Your task to perform on an android device: What's on my calendar tomorrow? Image 0: 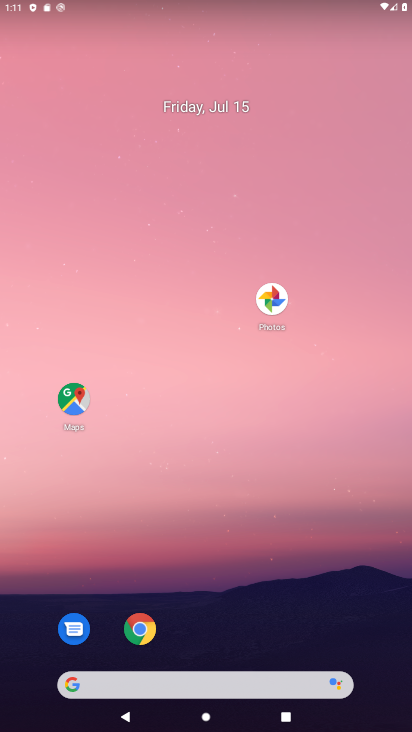
Step 0: drag from (134, 665) to (122, 180)
Your task to perform on an android device: What's on my calendar tomorrow? Image 1: 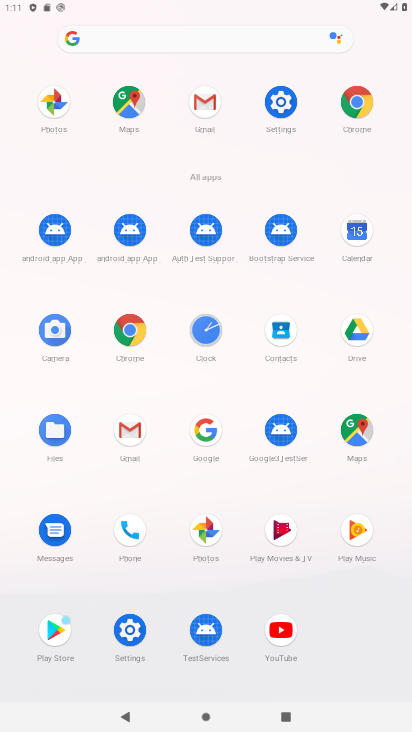
Step 1: click (352, 76)
Your task to perform on an android device: What's on my calendar tomorrow? Image 2: 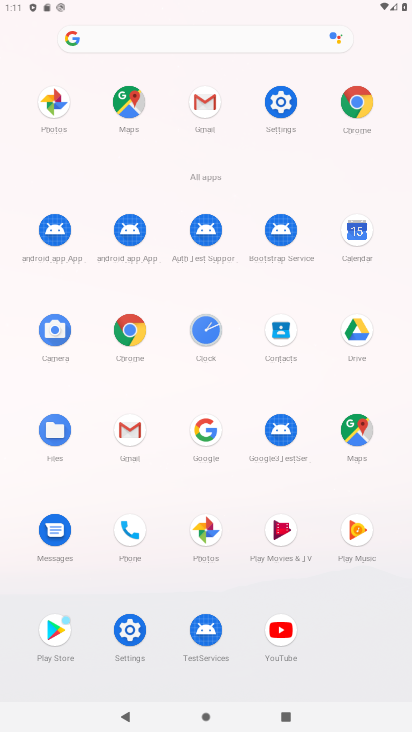
Step 2: click (364, 92)
Your task to perform on an android device: What's on my calendar tomorrow? Image 3: 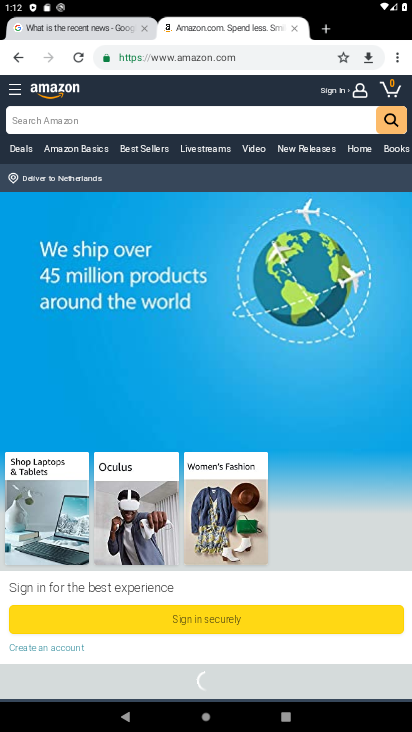
Step 3: click (400, 49)
Your task to perform on an android device: What's on my calendar tomorrow? Image 4: 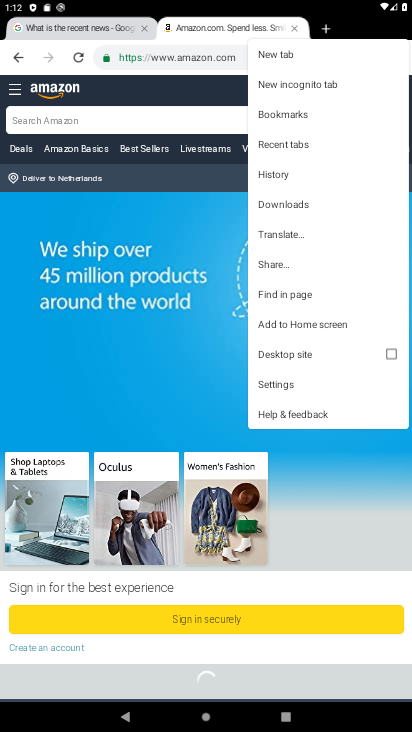
Step 4: click (274, 48)
Your task to perform on an android device: What's on my calendar tomorrow? Image 5: 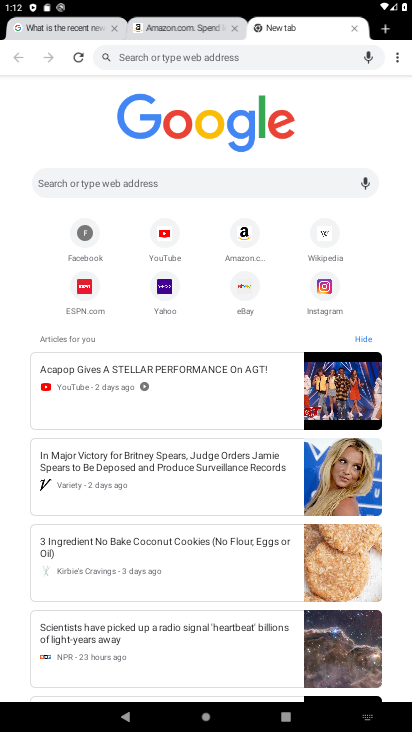
Step 5: click (71, 177)
Your task to perform on an android device: What's on my calendar tomorrow? Image 6: 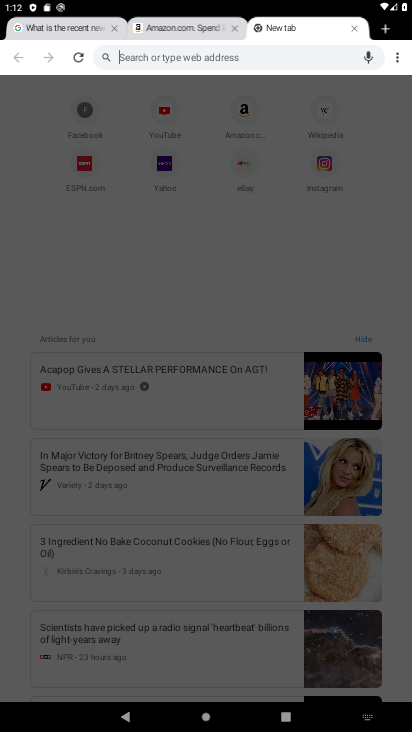
Step 6: type "What's on my calendar tomorrow "
Your task to perform on an android device: What's on my calendar tomorrow? Image 7: 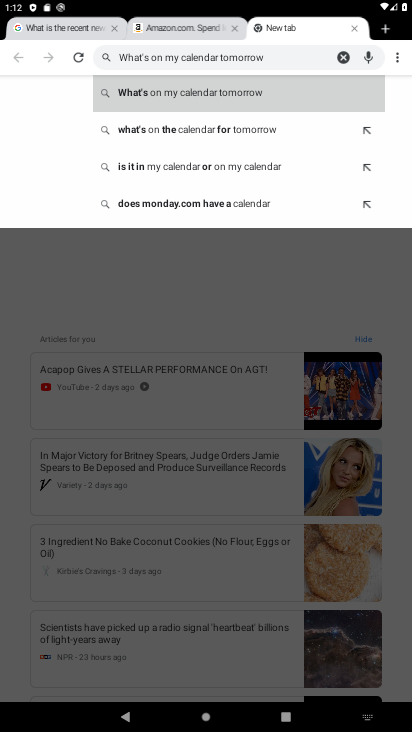
Step 7: click (228, 78)
Your task to perform on an android device: What's on my calendar tomorrow? Image 8: 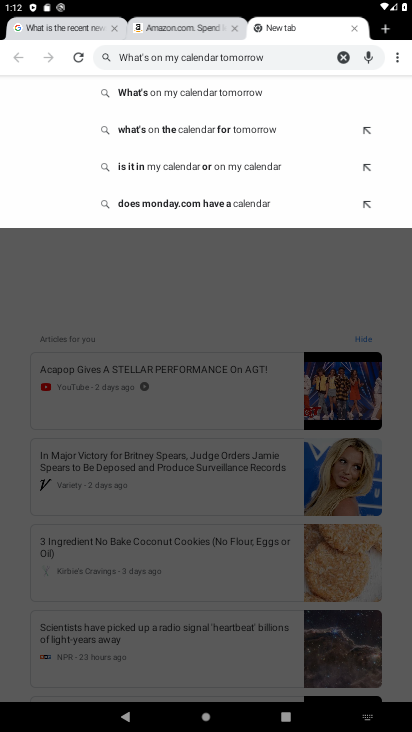
Step 8: click (226, 89)
Your task to perform on an android device: What's on my calendar tomorrow? Image 9: 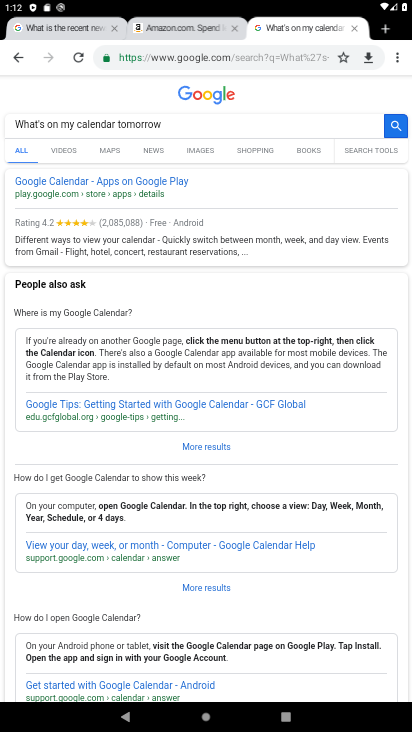
Step 9: task complete